Your task to perform on an android device: turn off javascript in the chrome app Image 0: 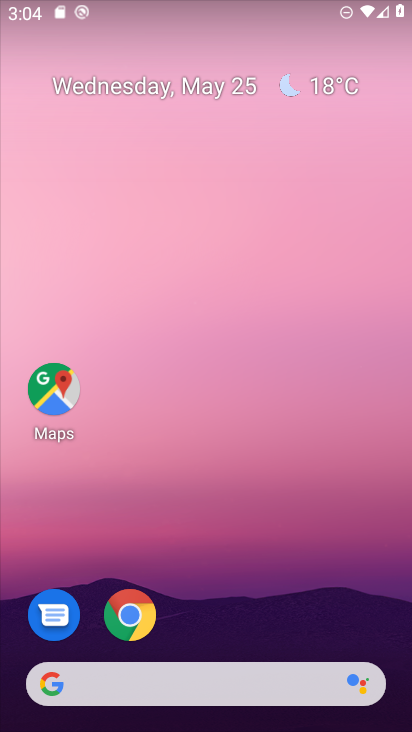
Step 0: click (145, 603)
Your task to perform on an android device: turn off javascript in the chrome app Image 1: 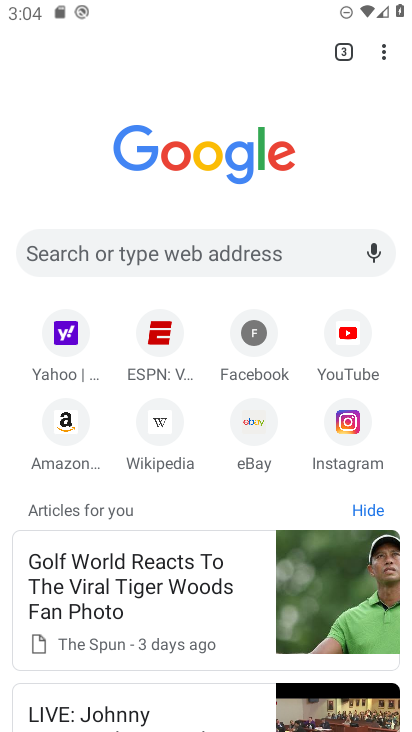
Step 1: click (381, 51)
Your task to perform on an android device: turn off javascript in the chrome app Image 2: 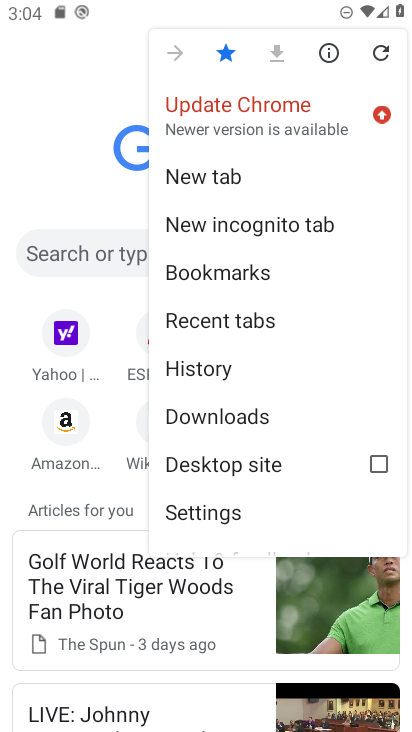
Step 2: click (239, 510)
Your task to perform on an android device: turn off javascript in the chrome app Image 3: 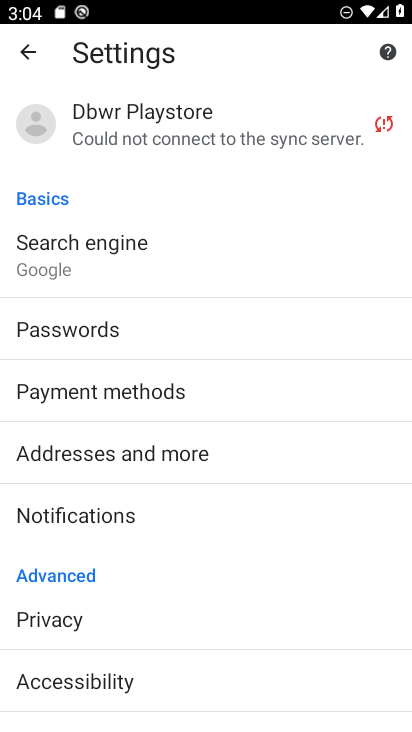
Step 3: drag from (249, 595) to (327, 261)
Your task to perform on an android device: turn off javascript in the chrome app Image 4: 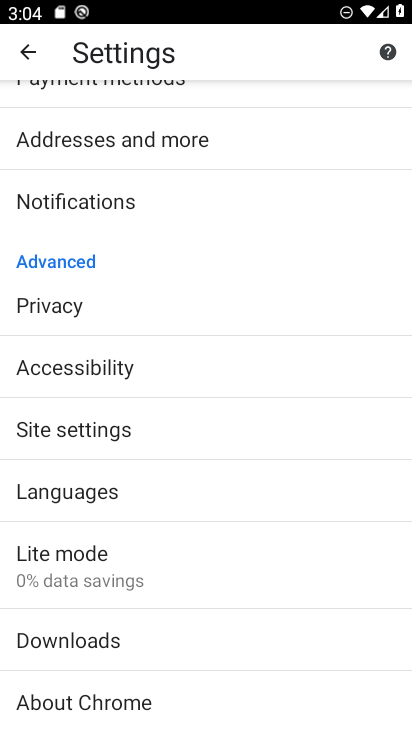
Step 4: click (239, 432)
Your task to perform on an android device: turn off javascript in the chrome app Image 5: 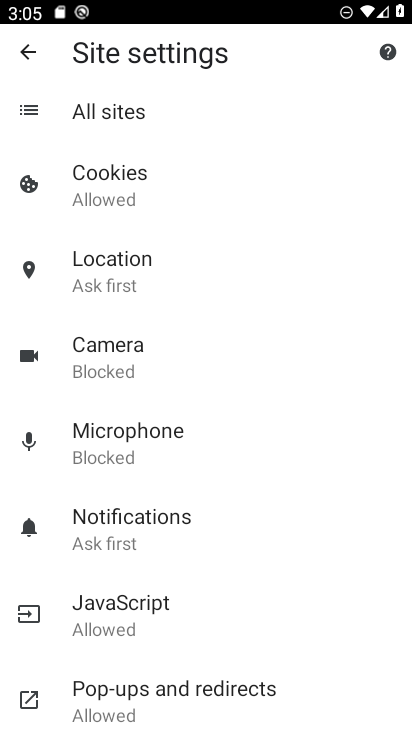
Step 5: click (229, 603)
Your task to perform on an android device: turn off javascript in the chrome app Image 6: 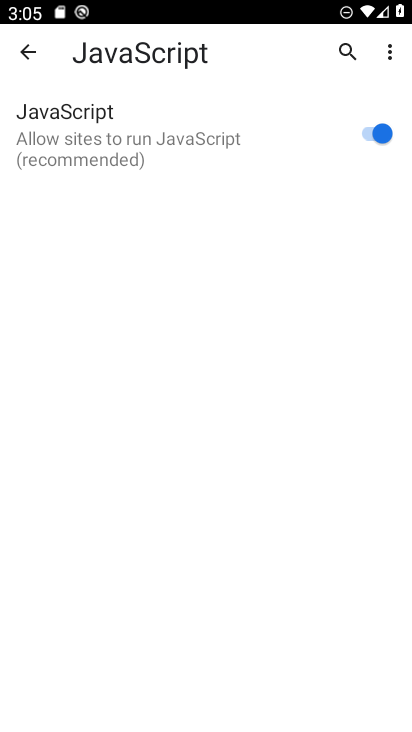
Step 6: click (369, 123)
Your task to perform on an android device: turn off javascript in the chrome app Image 7: 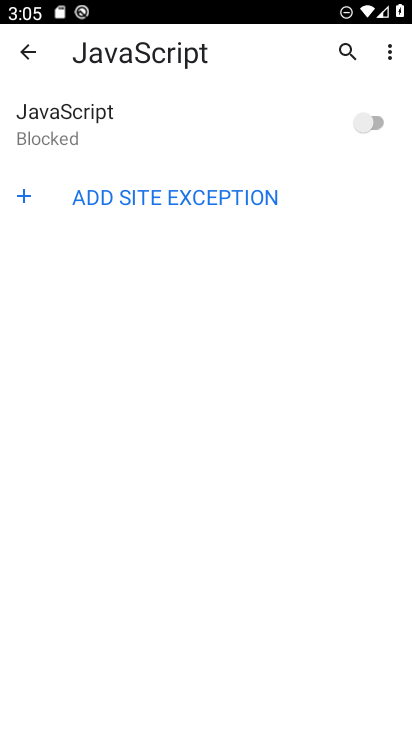
Step 7: task complete